Your task to perform on an android device: Open Chrome and go to settings Image 0: 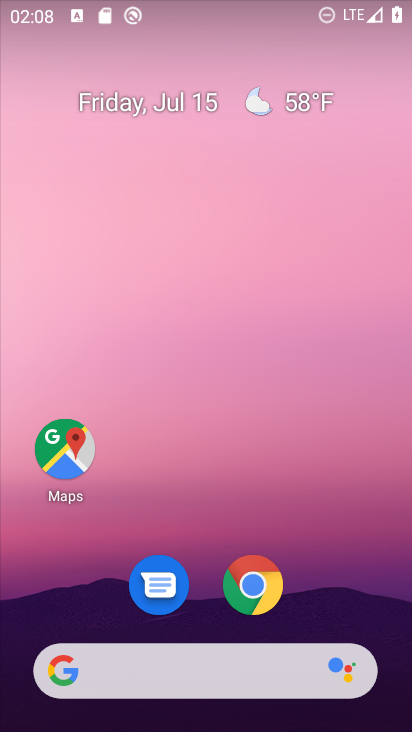
Step 0: click (256, 574)
Your task to perform on an android device: Open Chrome and go to settings Image 1: 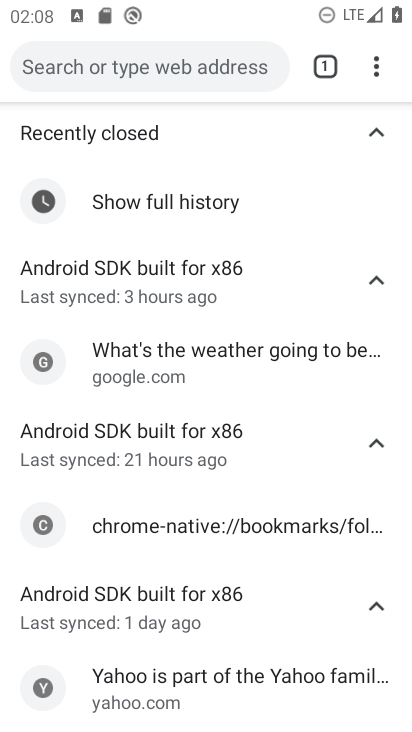
Step 1: click (373, 67)
Your task to perform on an android device: Open Chrome and go to settings Image 2: 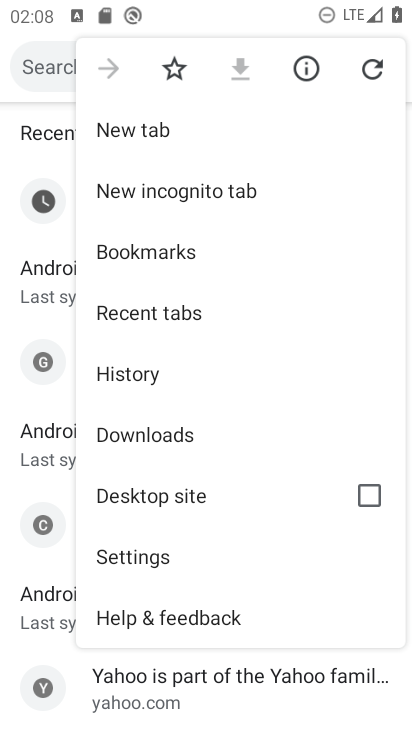
Step 2: click (155, 548)
Your task to perform on an android device: Open Chrome and go to settings Image 3: 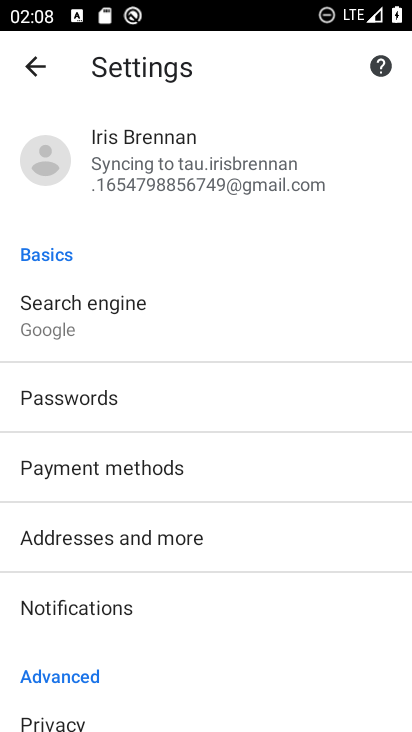
Step 3: task complete